Your task to perform on an android device: turn off location Image 0: 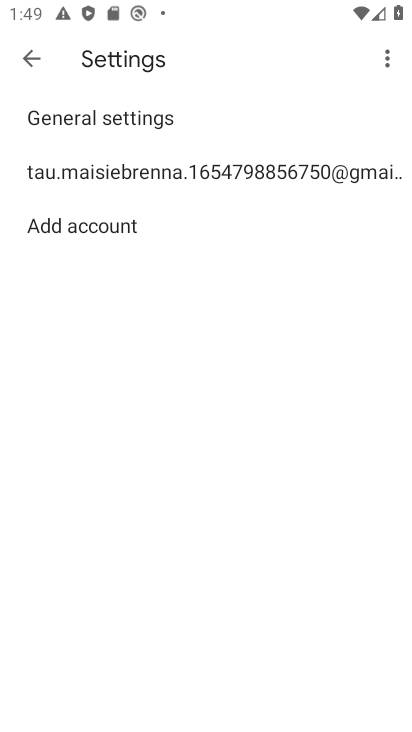
Step 0: press home button
Your task to perform on an android device: turn off location Image 1: 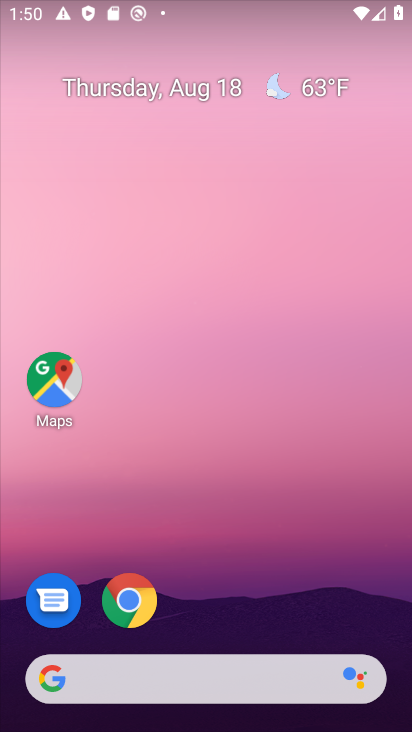
Step 1: drag from (231, 593) to (189, 216)
Your task to perform on an android device: turn off location Image 2: 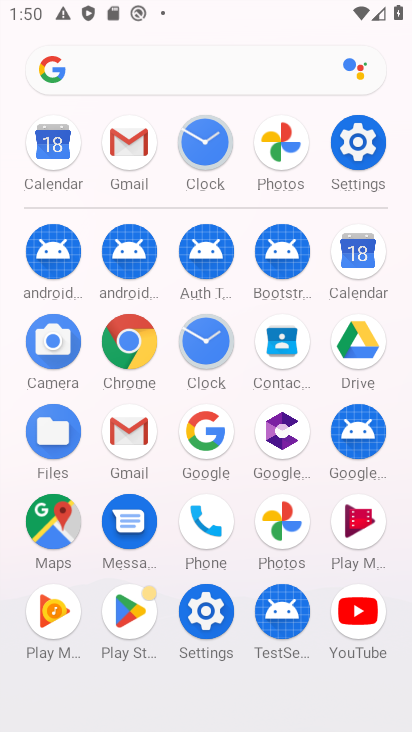
Step 2: click (206, 612)
Your task to perform on an android device: turn off location Image 3: 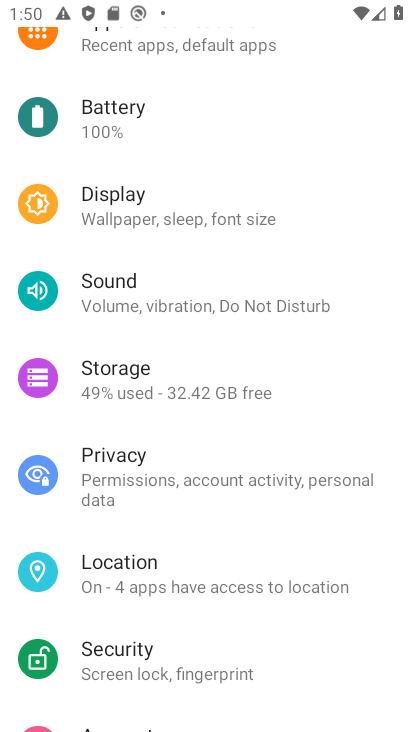
Step 3: click (124, 557)
Your task to perform on an android device: turn off location Image 4: 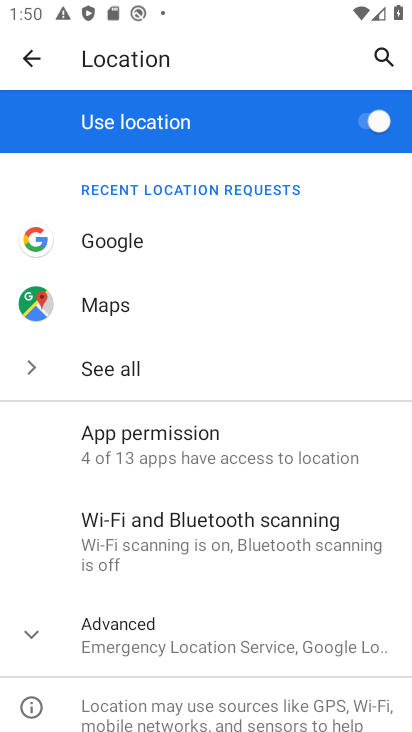
Step 4: click (385, 127)
Your task to perform on an android device: turn off location Image 5: 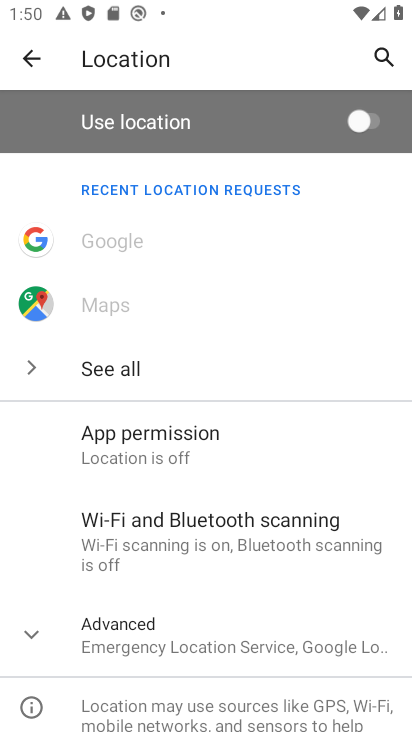
Step 5: task complete